Your task to perform on an android device: Clear the shopping cart on amazon.com. Search for "panasonic triple a" on amazon.com, select the first entry, and add it to the cart. Image 0: 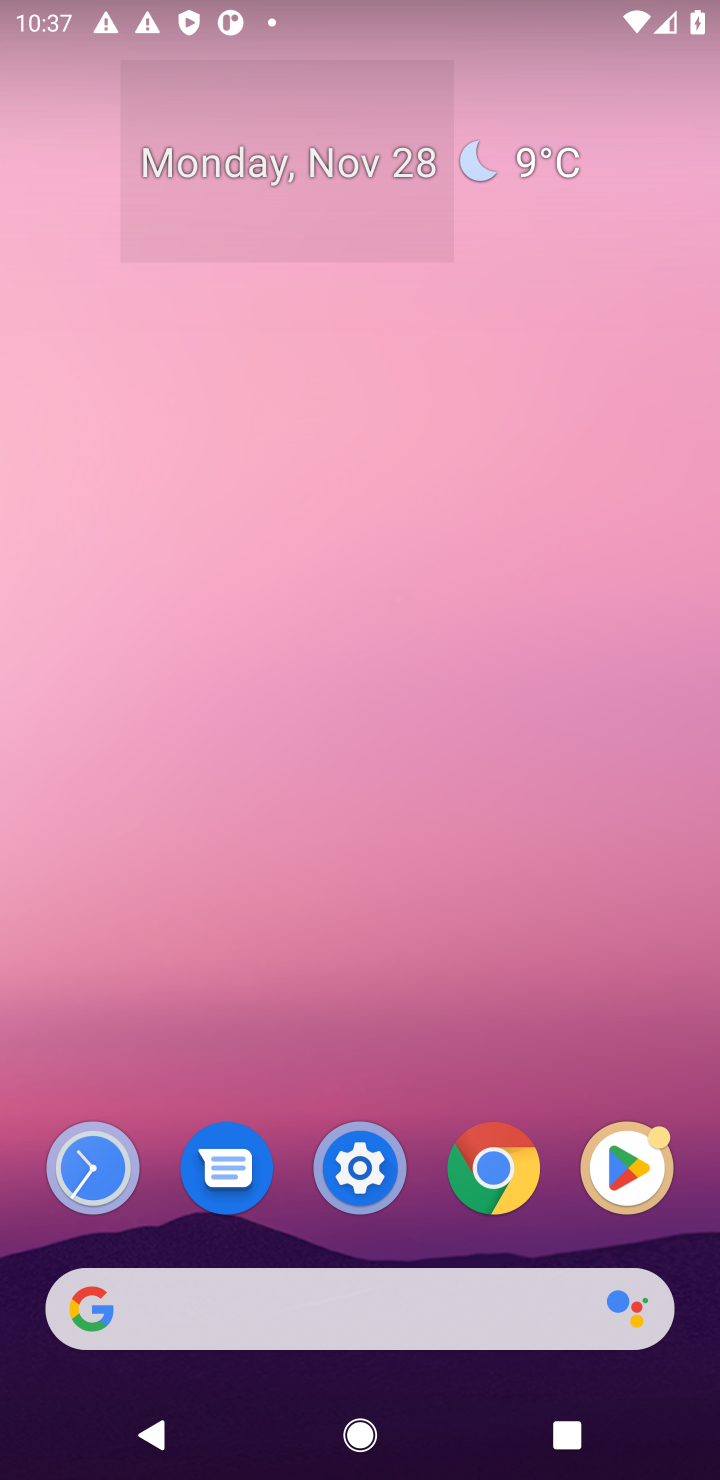
Step 0: click (409, 1293)
Your task to perform on an android device: Clear the shopping cart on amazon.com. Search for "panasonic triple a" on amazon.com, select the first entry, and add it to the cart. Image 1: 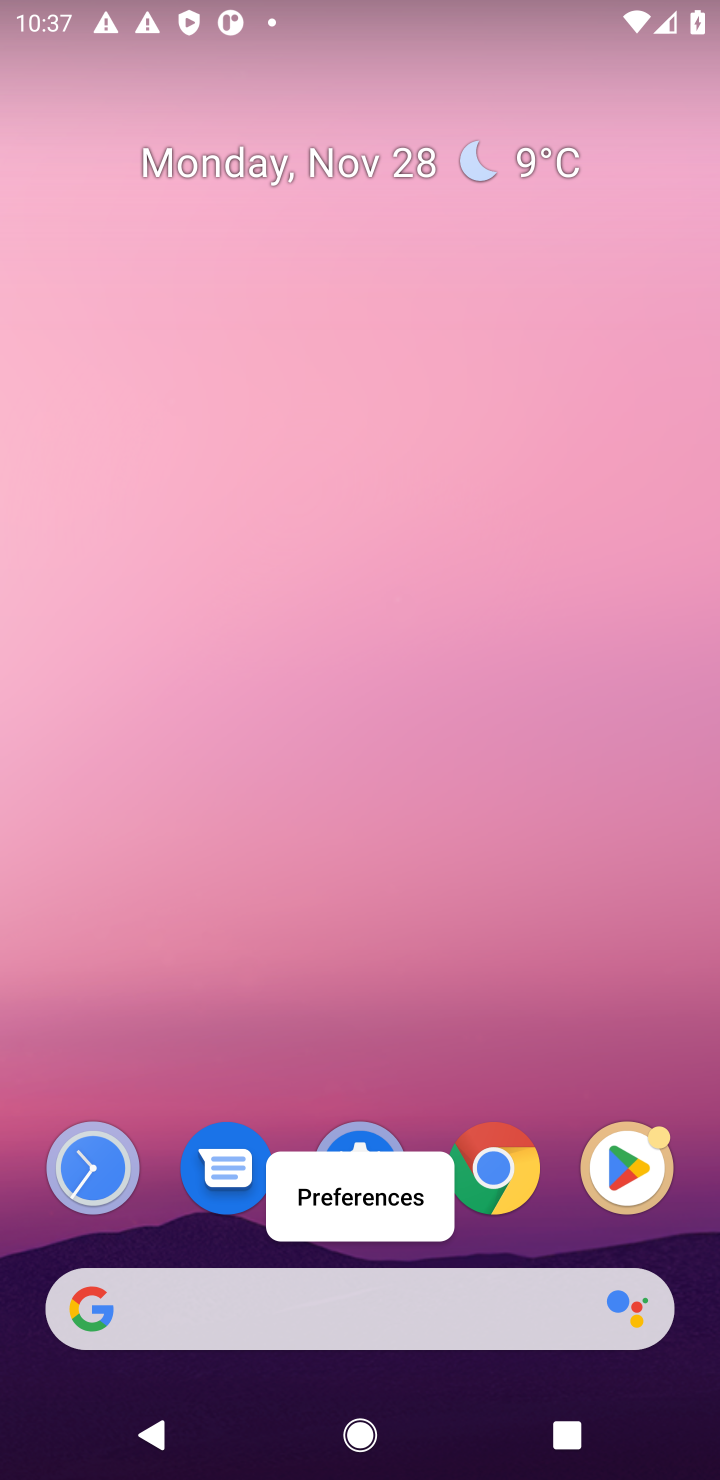
Step 1: type "amazon"
Your task to perform on an android device: Clear the shopping cart on amazon.com. Search for "panasonic triple a" on amazon.com, select the first entry, and add it to the cart. Image 2: 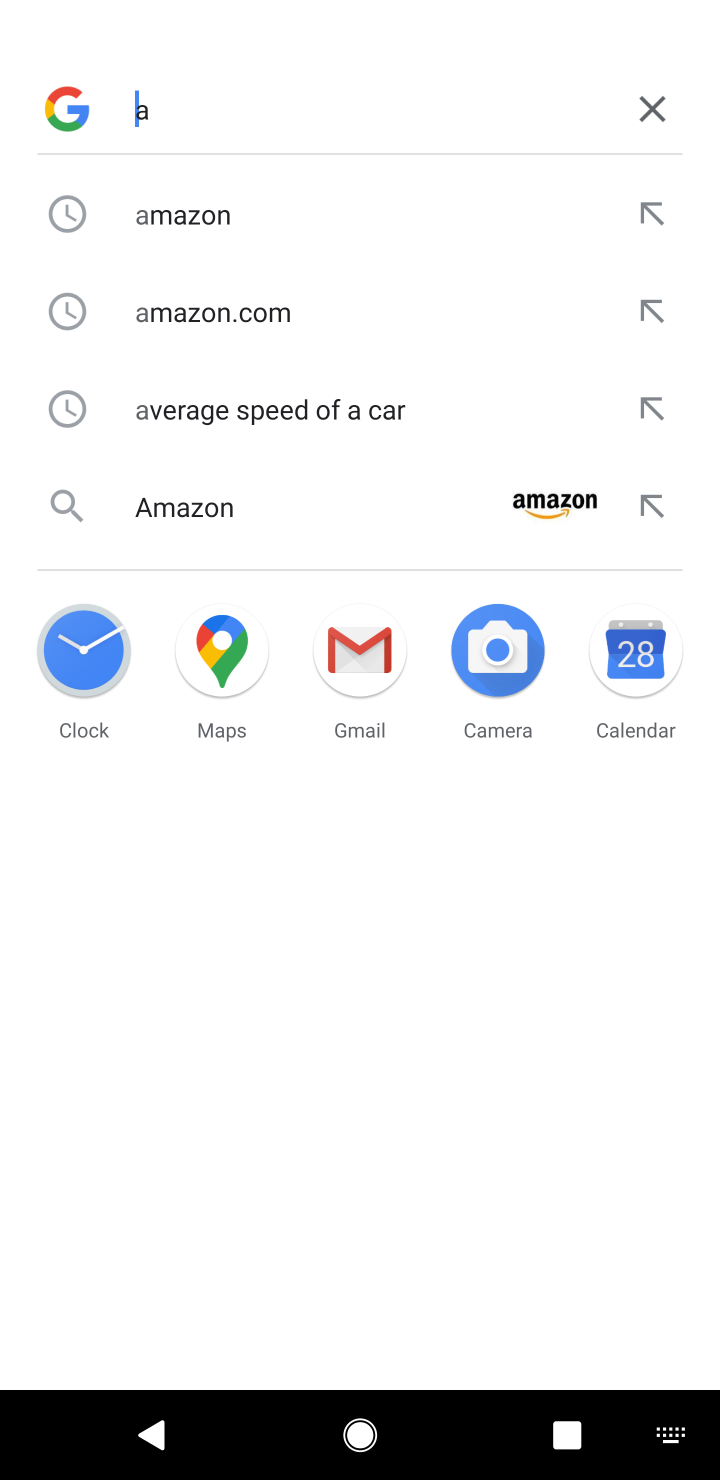
Step 2: click (243, 201)
Your task to perform on an android device: Clear the shopping cart on amazon.com. Search for "panasonic triple a" on amazon.com, select the first entry, and add it to the cart. Image 3: 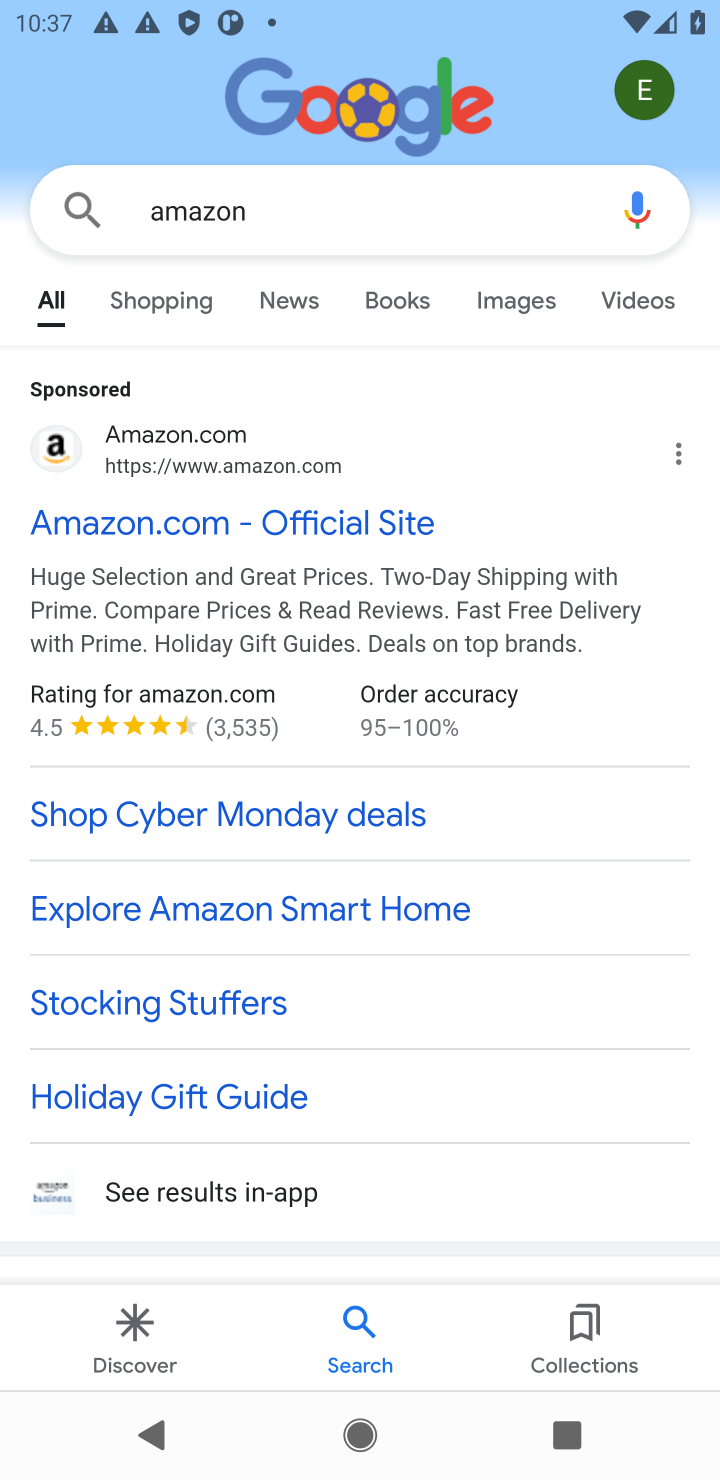
Step 3: click (202, 499)
Your task to perform on an android device: Clear the shopping cart on amazon.com. Search for "panasonic triple a" on amazon.com, select the first entry, and add it to the cart. Image 4: 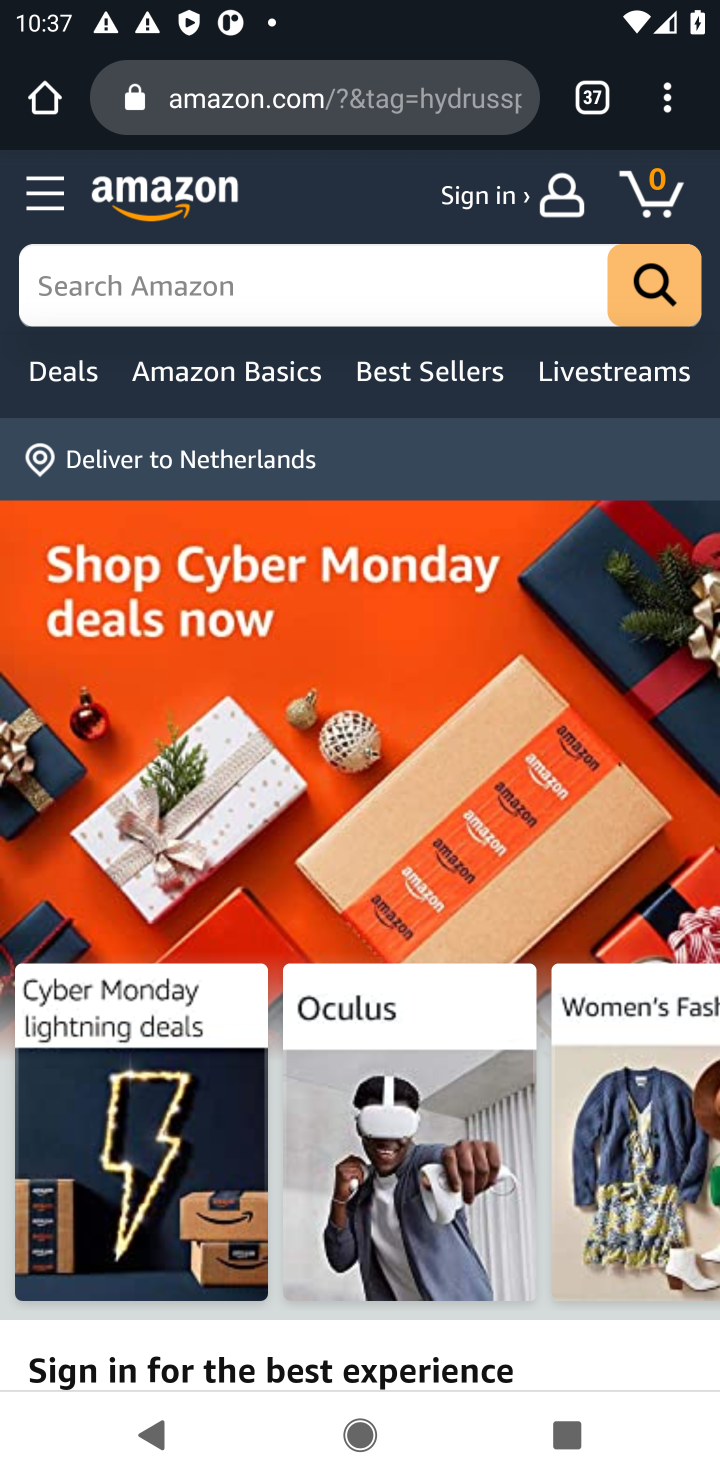
Step 4: click (259, 297)
Your task to perform on an android device: Clear the shopping cart on amazon.com. Search for "panasonic triple a" on amazon.com, select the first entry, and add it to the cart. Image 5: 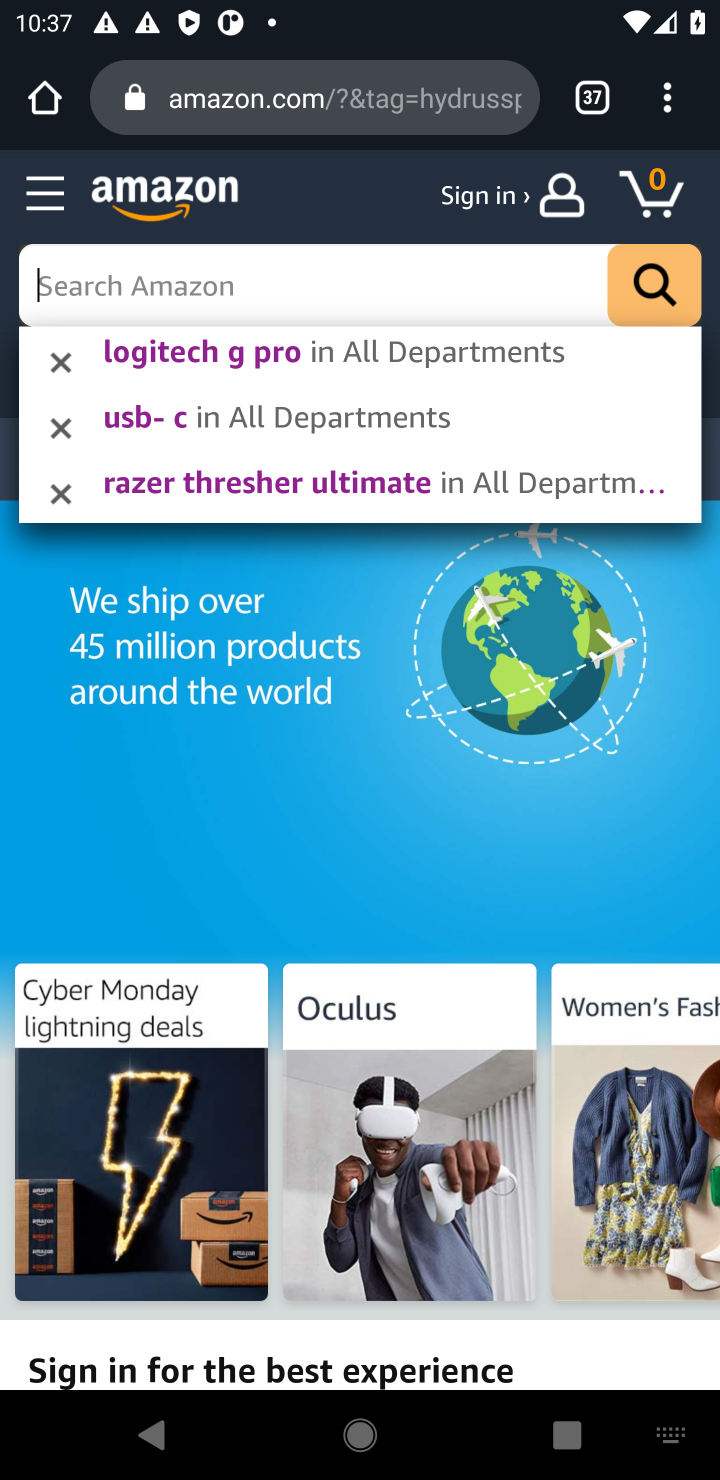
Step 5: type "pansonic triple a"
Your task to perform on an android device: Clear the shopping cart on amazon.com. Search for "panasonic triple a" on amazon.com, select the first entry, and add it to the cart. Image 6: 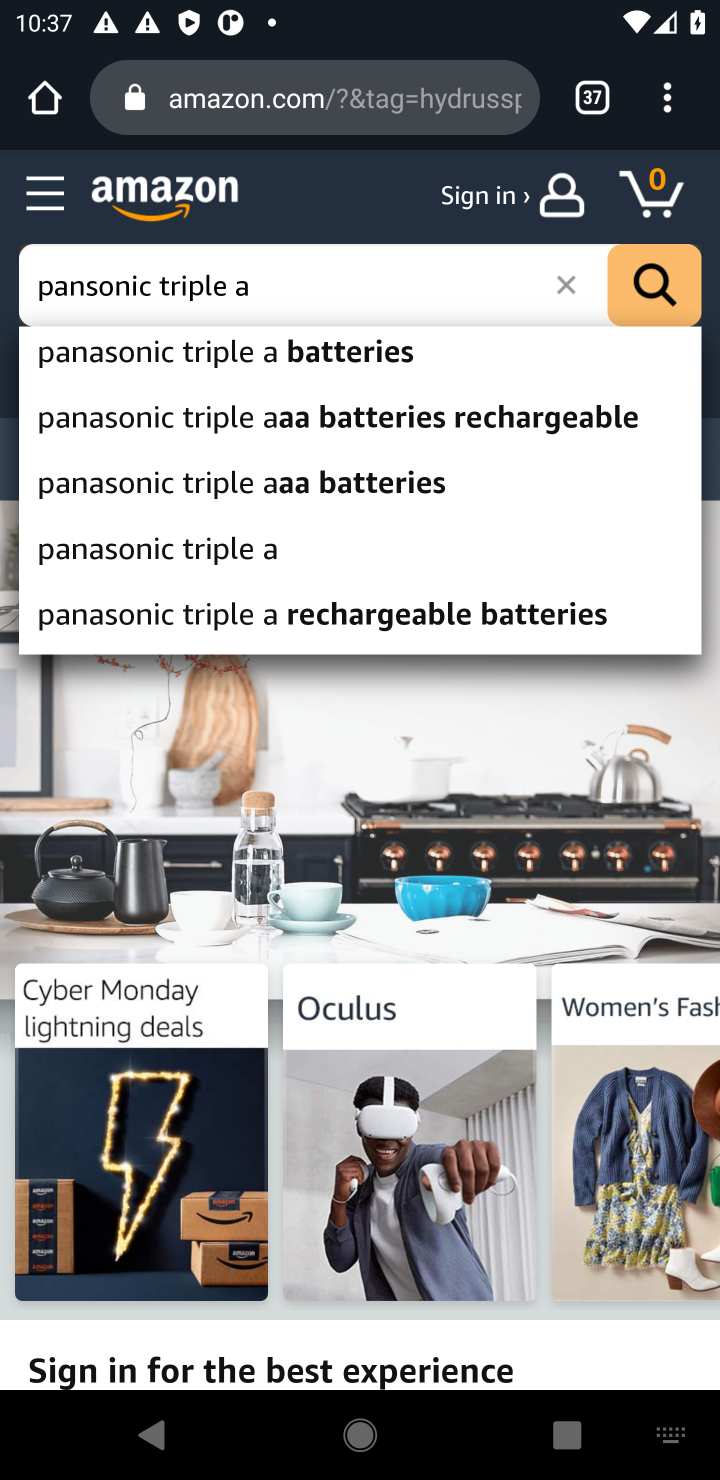
Step 6: click (209, 386)
Your task to perform on an android device: Clear the shopping cart on amazon.com. Search for "panasonic triple a" on amazon.com, select the first entry, and add it to the cart. Image 7: 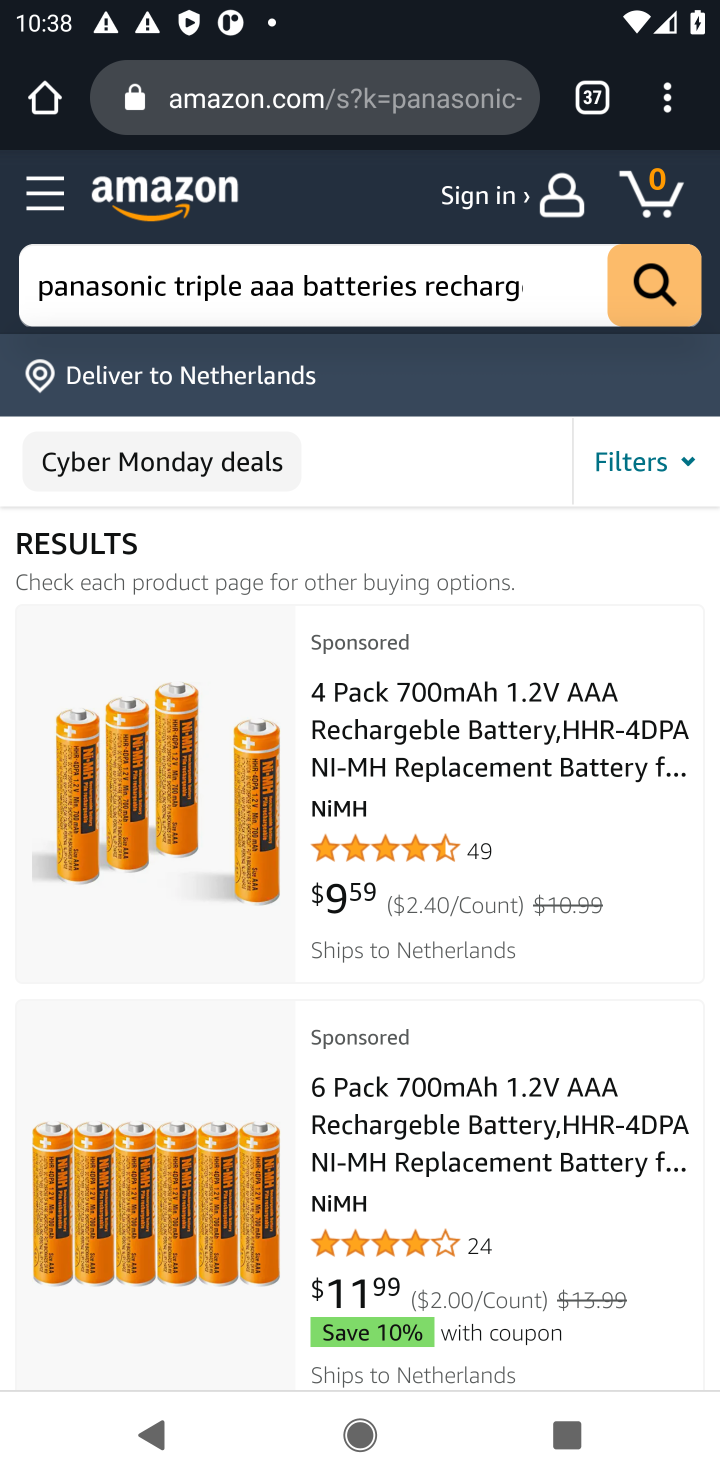
Step 7: click (352, 743)
Your task to perform on an android device: Clear the shopping cart on amazon.com. Search for "panasonic triple a" on amazon.com, select the first entry, and add it to the cart. Image 8: 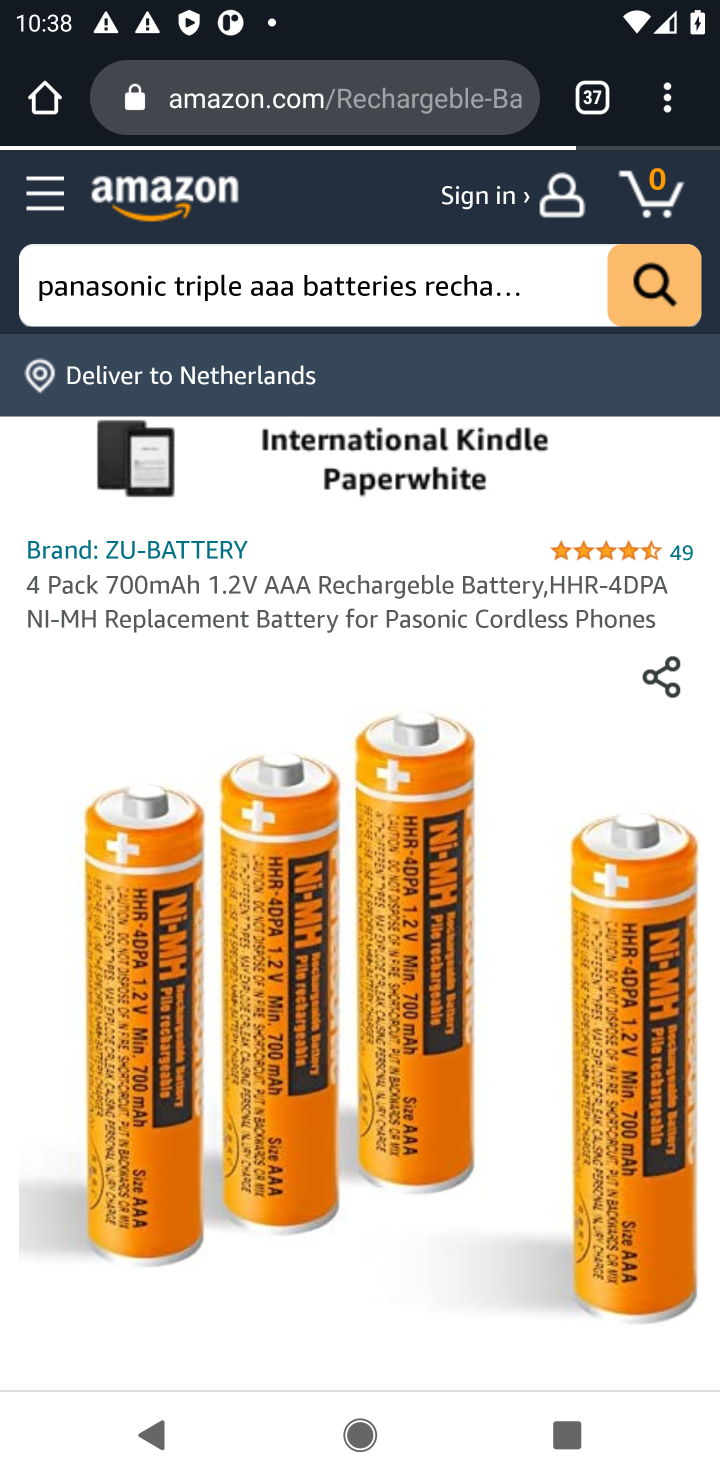
Step 8: task complete